Your task to perform on an android device: Search for Mexican restaurants on Maps Image 0: 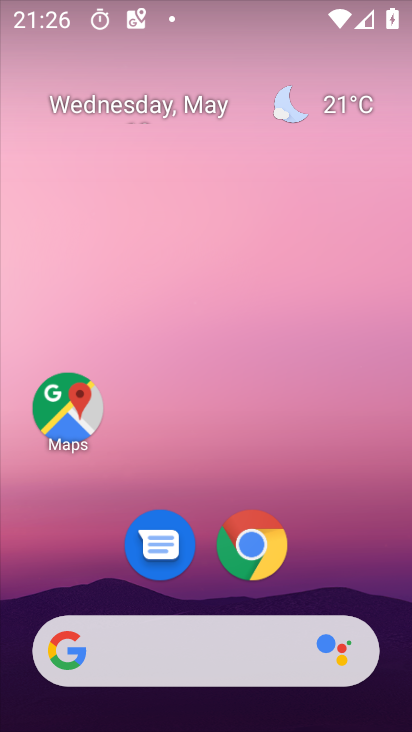
Step 0: drag from (314, 595) to (319, 18)
Your task to perform on an android device: Search for Mexican restaurants on Maps Image 1: 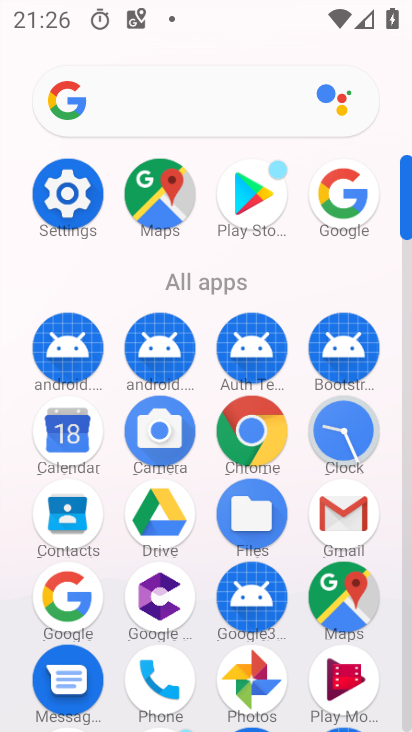
Step 1: click (356, 596)
Your task to perform on an android device: Search for Mexican restaurants on Maps Image 2: 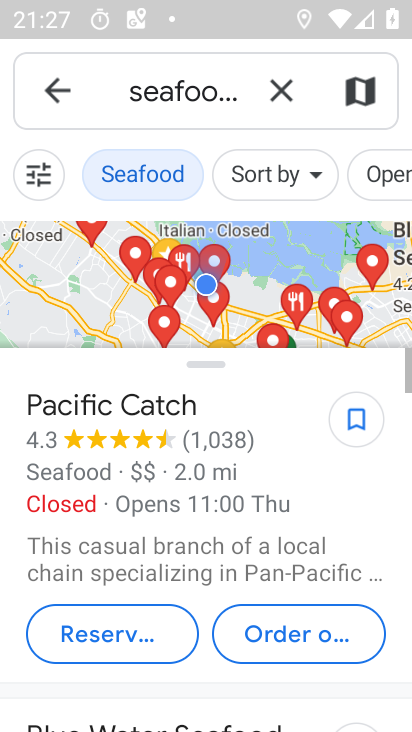
Step 2: click (266, 93)
Your task to perform on an android device: Search for Mexican restaurants on Maps Image 3: 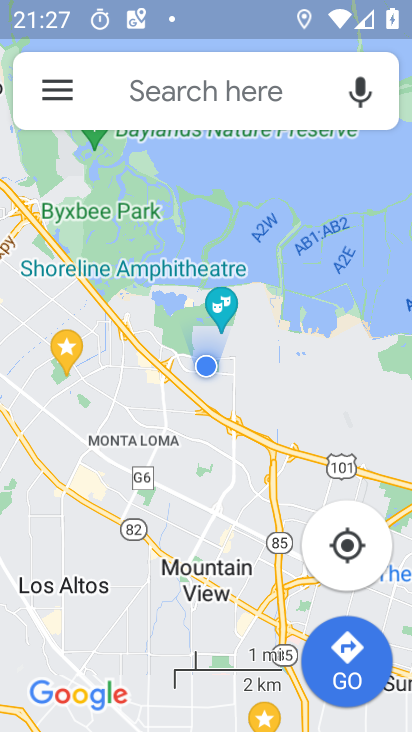
Step 3: click (179, 82)
Your task to perform on an android device: Search for Mexican restaurants on Maps Image 4: 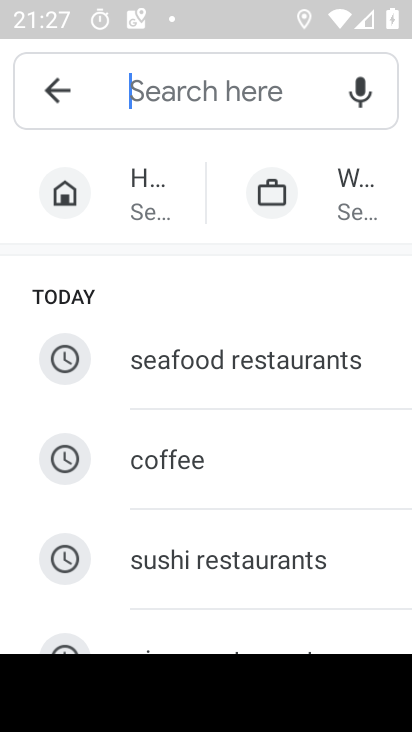
Step 4: type "mexican restaurants"
Your task to perform on an android device: Search for Mexican restaurants on Maps Image 5: 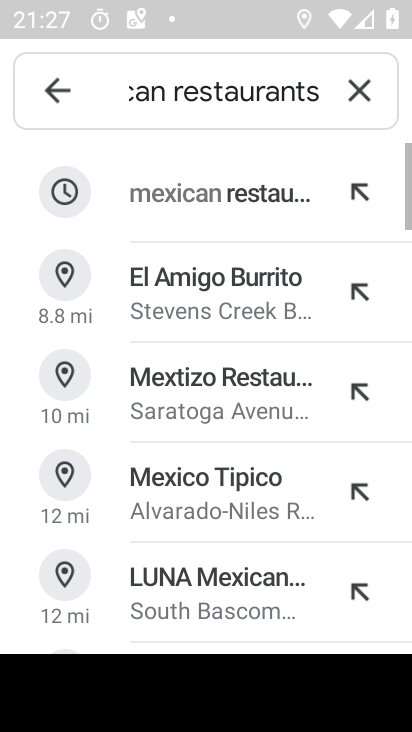
Step 5: click (225, 202)
Your task to perform on an android device: Search for Mexican restaurants on Maps Image 6: 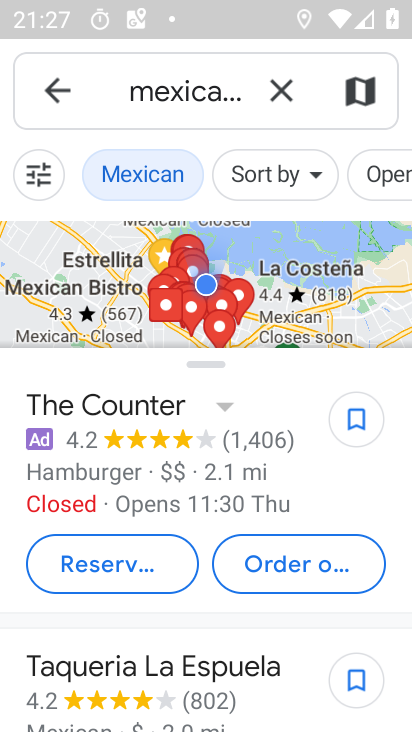
Step 6: task complete